Your task to perform on an android device: toggle improve location accuracy Image 0: 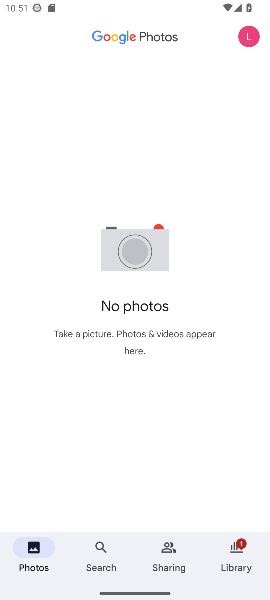
Step 0: press home button
Your task to perform on an android device: toggle improve location accuracy Image 1: 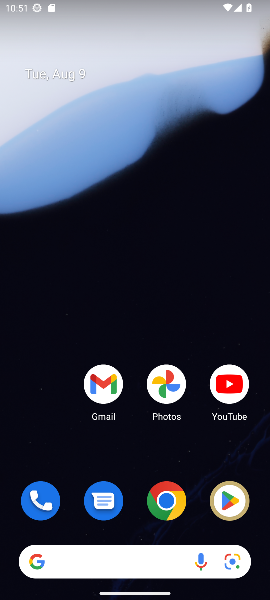
Step 1: drag from (137, 524) to (166, 2)
Your task to perform on an android device: toggle improve location accuracy Image 2: 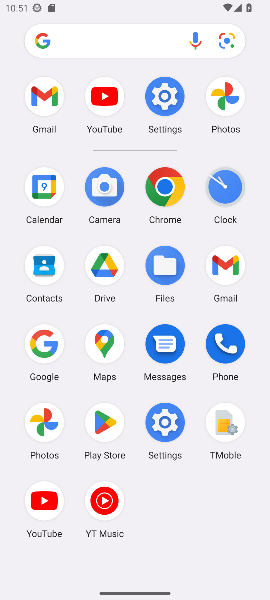
Step 2: click (164, 99)
Your task to perform on an android device: toggle improve location accuracy Image 3: 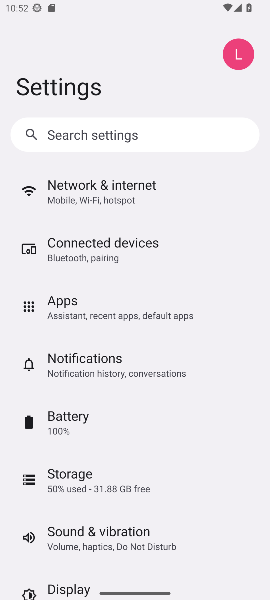
Step 3: drag from (92, 544) to (113, 297)
Your task to perform on an android device: toggle improve location accuracy Image 4: 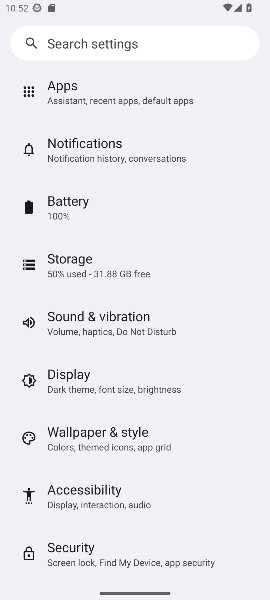
Step 4: drag from (84, 506) to (109, 293)
Your task to perform on an android device: toggle improve location accuracy Image 5: 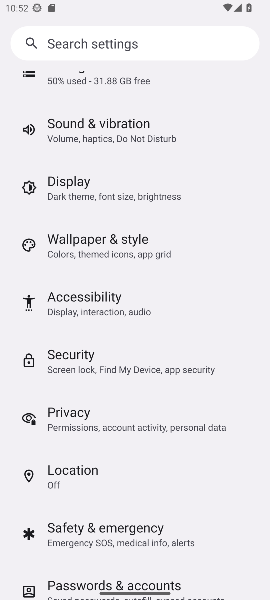
Step 5: click (61, 476)
Your task to perform on an android device: toggle improve location accuracy Image 6: 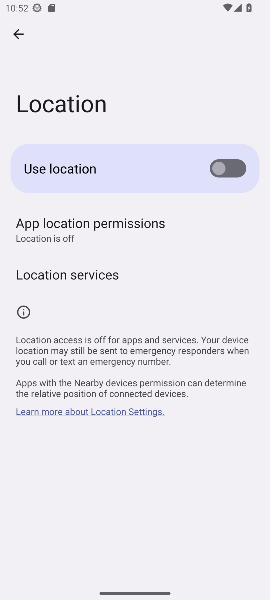
Step 6: click (71, 276)
Your task to perform on an android device: toggle improve location accuracy Image 7: 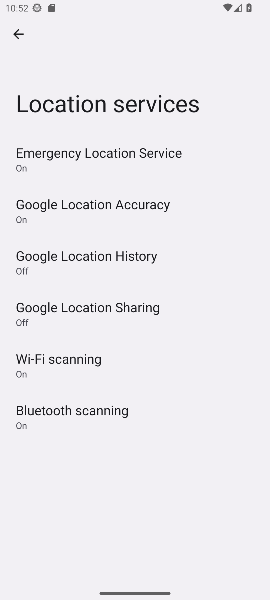
Step 7: click (136, 203)
Your task to perform on an android device: toggle improve location accuracy Image 8: 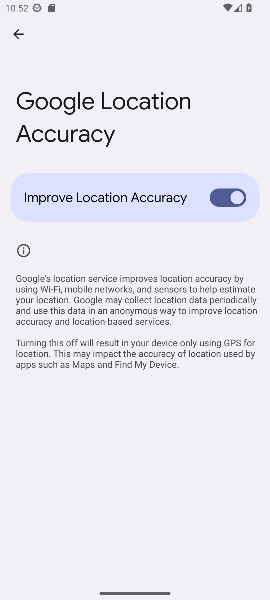
Step 8: click (214, 197)
Your task to perform on an android device: toggle improve location accuracy Image 9: 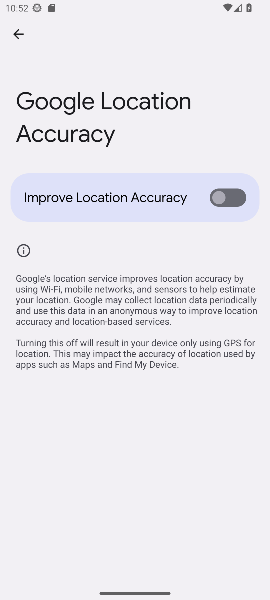
Step 9: task complete